Your task to perform on an android device: Search for Mexican restaurants on Maps Image 0: 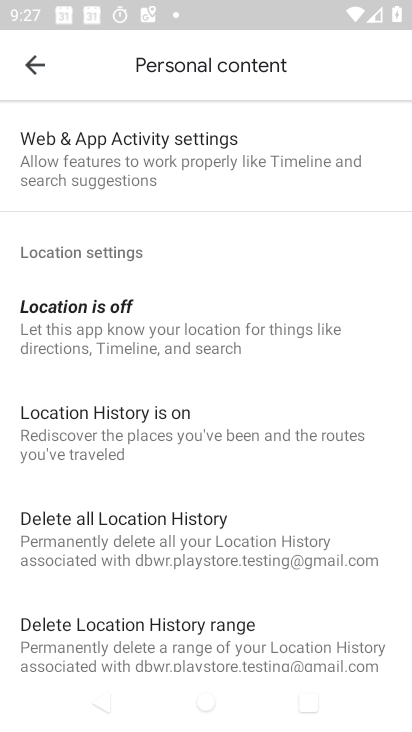
Step 0: press home button
Your task to perform on an android device: Search for Mexican restaurants on Maps Image 1: 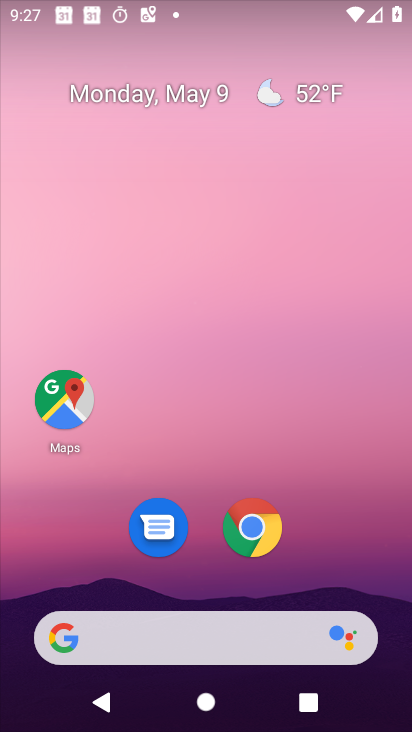
Step 1: drag from (382, 563) to (343, 189)
Your task to perform on an android device: Search for Mexican restaurants on Maps Image 2: 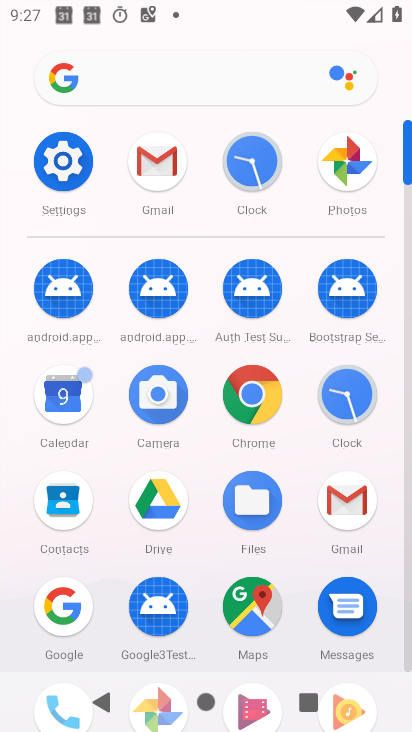
Step 2: click (267, 614)
Your task to perform on an android device: Search for Mexican restaurants on Maps Image 3: 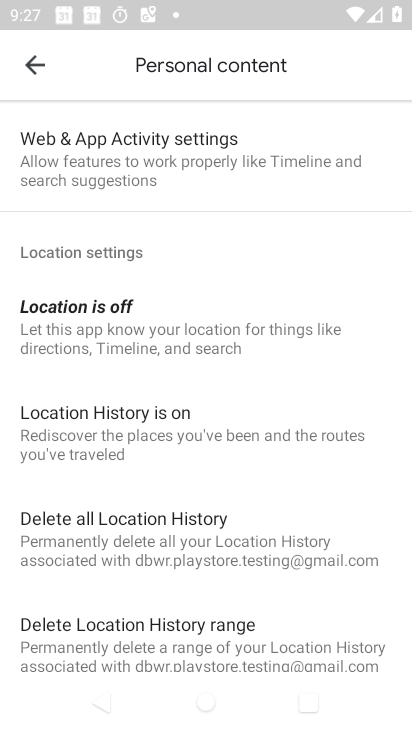
Step 3: click (32, 66)
Your task to perform on an android device: Search for Mexican restaurants on Maps Image 4: 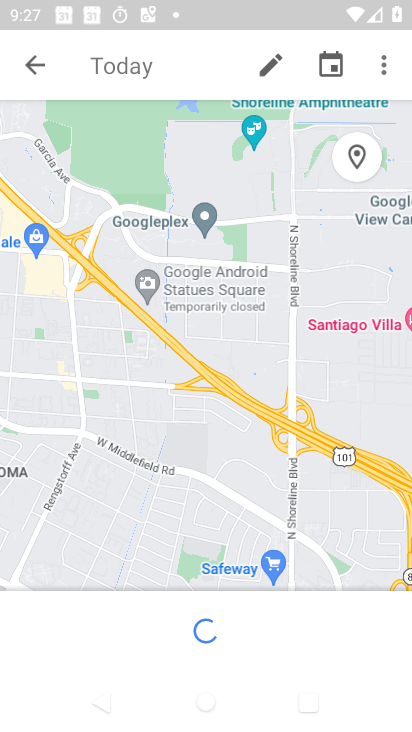
Step 4: click (33, 67)
Your task to perform on an android device: Search for Mexican restaurants on Maps Image 5: 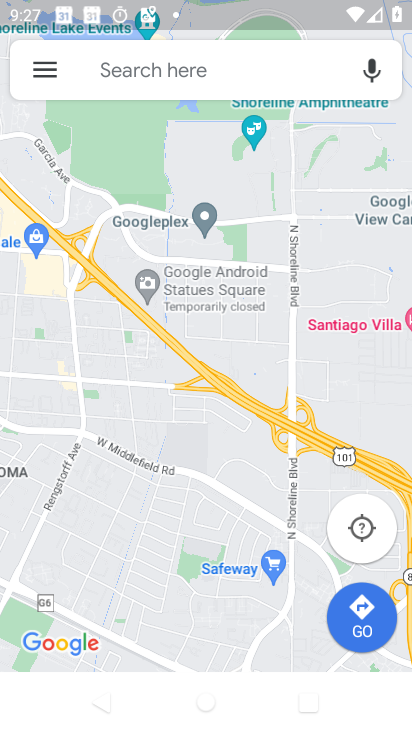
Step 5: click (162, 75)
Your task to perform on an android device: Search for Mexican restaurants on Maps Image 6: 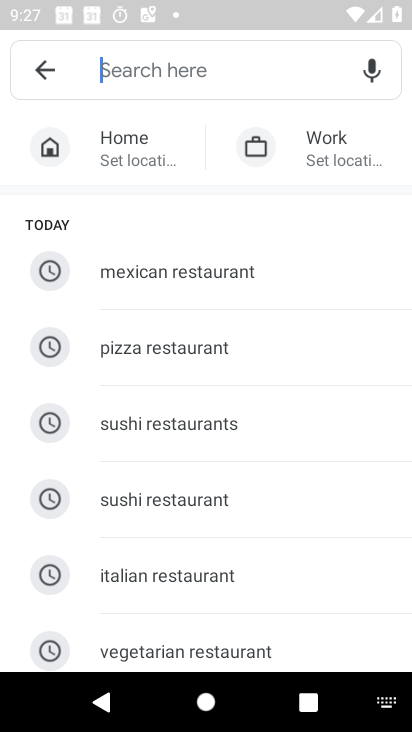
Step 6: click (253, 271)
Your task to perform on an android device: Search for Mexican restaurants on Maps Image 7: 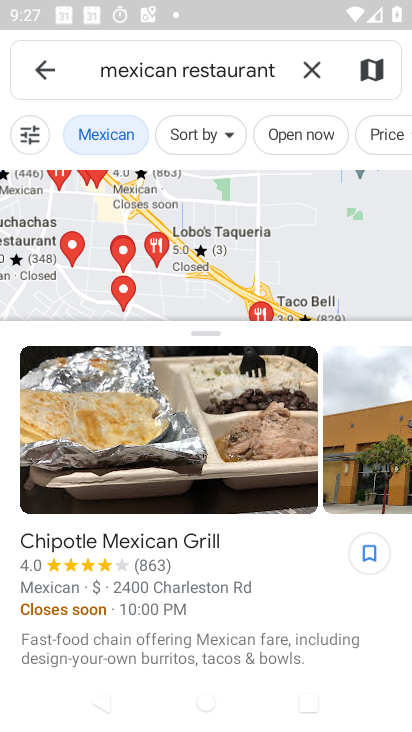
Step 7: task complete